Your task to perform on an android device: Go to eBay Image 0: 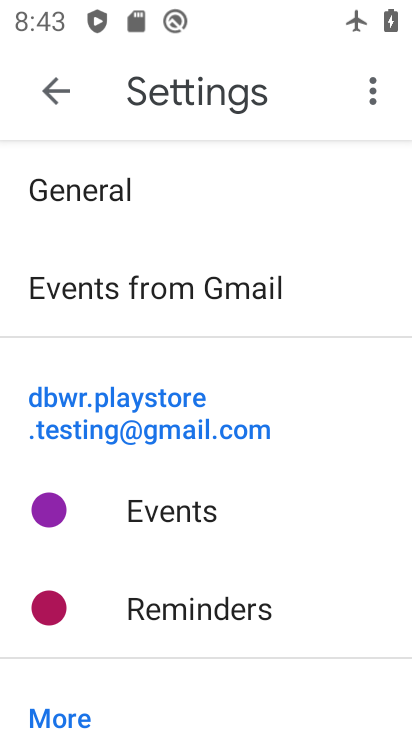
Step 0: press back button
Your task to perform on an android device: Go to eBay Image 1: 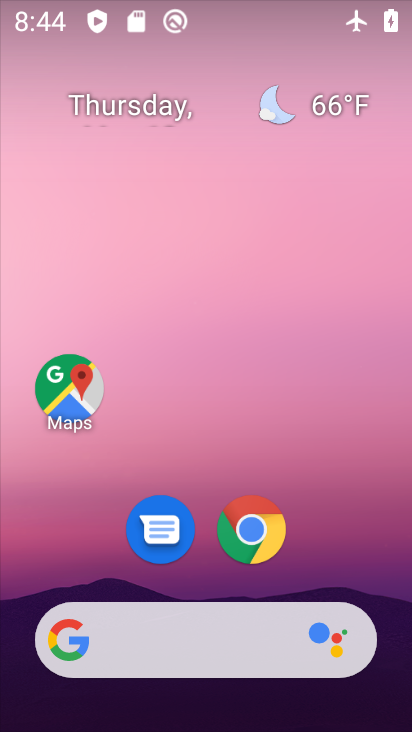
Step 1: drag from (333, 557) to (199, 72)
Your task to perform on an android device: Go to eBay Image 2: 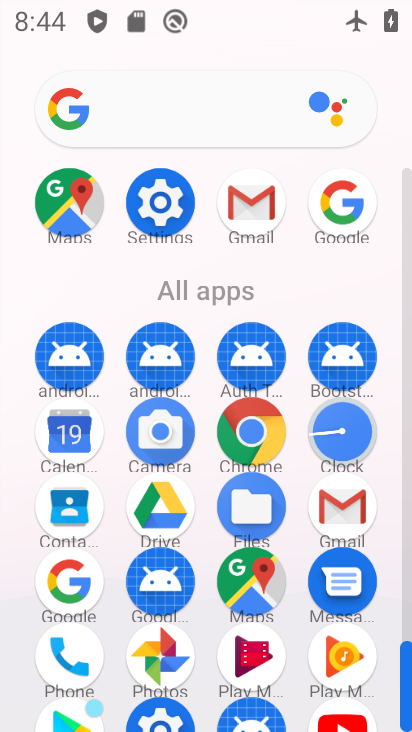
Step 2: click (338, 203)
Your task to perform on an android device: Go to eBay Image 3: 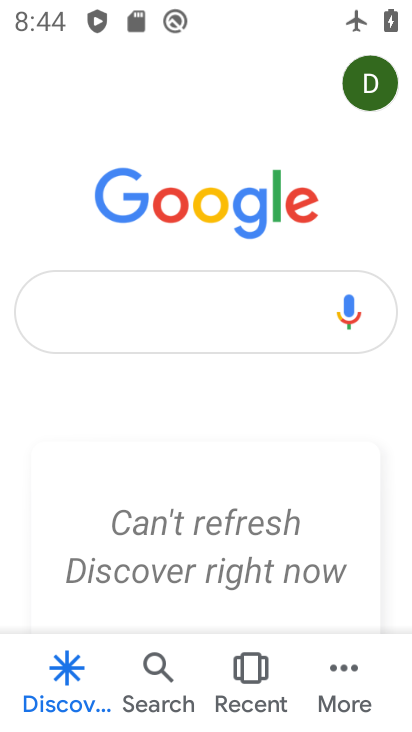
Step 3: press back button
Your task to perform on an android device: Go to eBay Image 4: 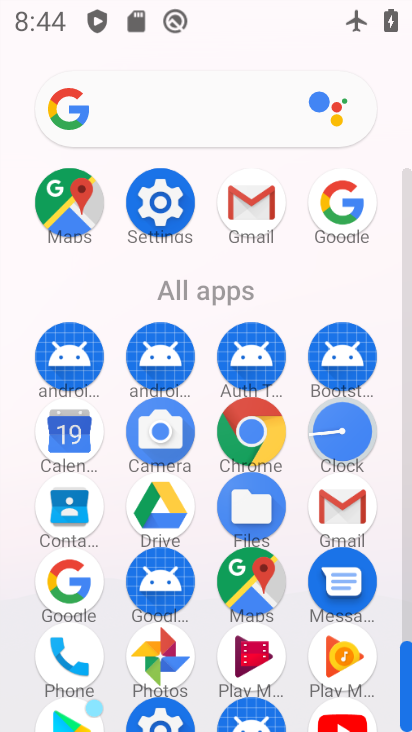
Step 4: click (161, 202)
Your task to perform on an android device: Go to eBay Image 5: 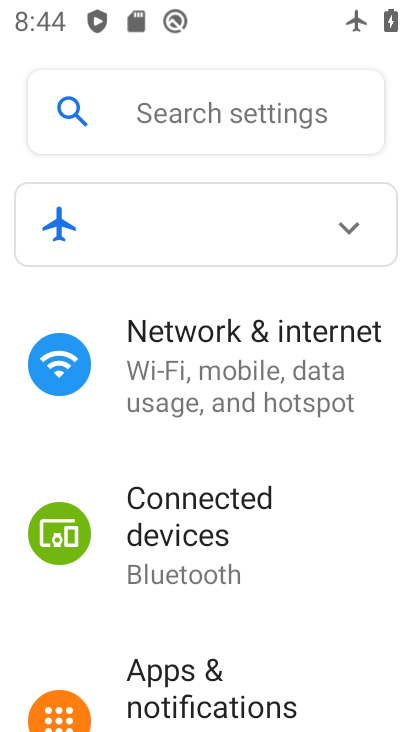
Step 5: click (172, 330)
Your task to perform on an android device: Go to eBay Image 6: 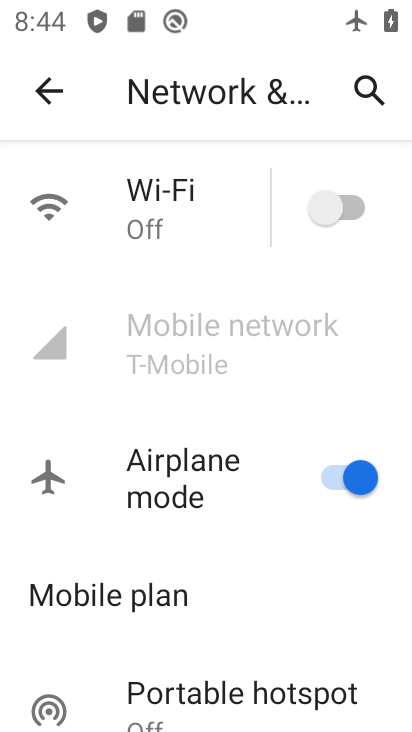
Step 6: click (358, 479)
Your task to perform on an android device: Go to eBay Image 7: 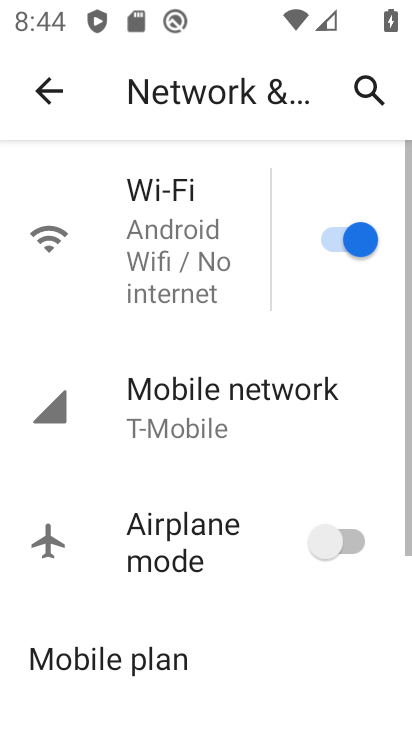
Step 7: press back button
Your task to perform on an android device: Go to eBay Image 8: 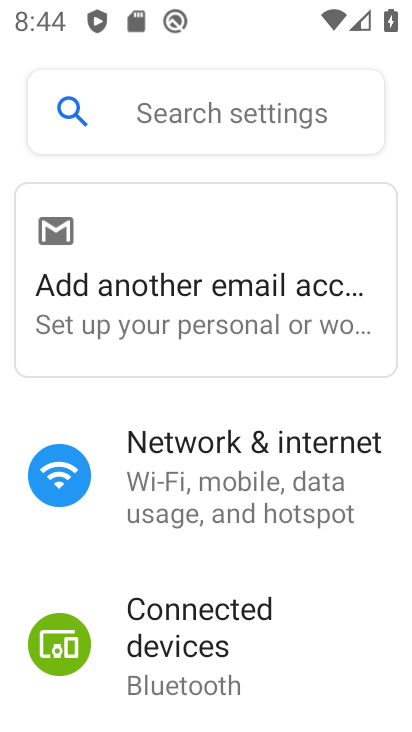
Step 8: press back button
Your task to perform on an android device: Go to eBay Image 9: 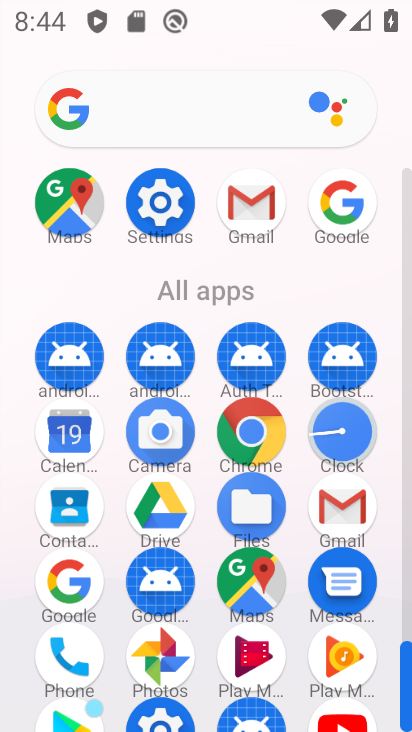
Step 9: click (335, 200)
Your task to perform on an android device: Go to eBay Image 10: 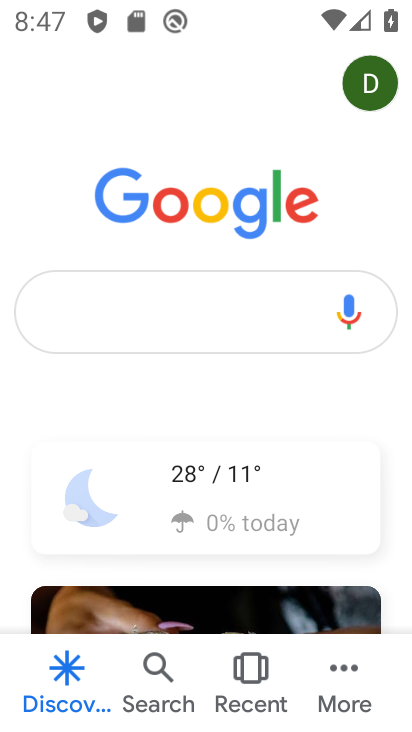
Step 10: click (188, 296)
Your task to perform on an android device: Go to eBay Image 11: 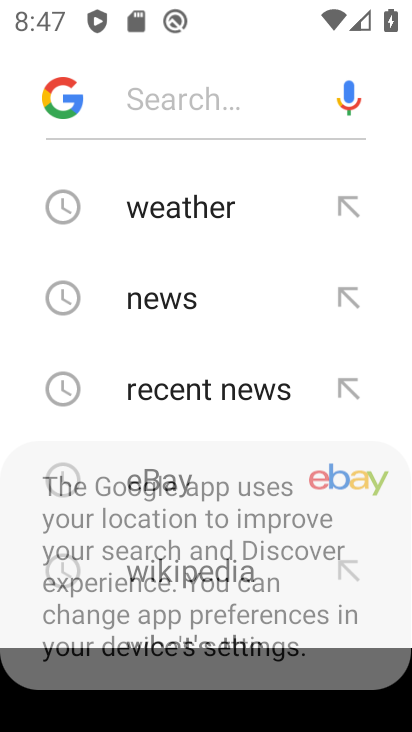
Step 11: click (242, 100)
Your task to perform on an android device: Go to eBay Image 12: 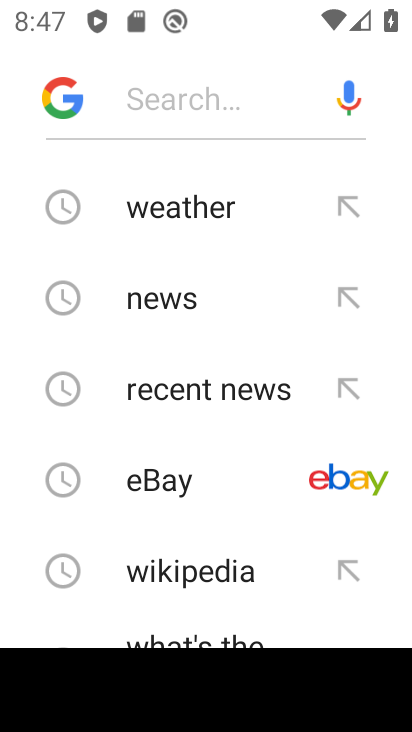
Step 12: type "eBay"
Your task to perform on an android device: Go to eBay Image 13: 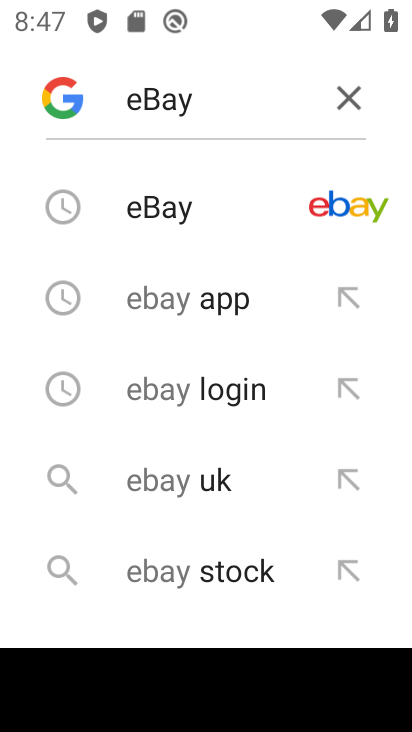
Step 13: click (165, 206)
Your task to perform on an android device: Go to eBay Image 14: 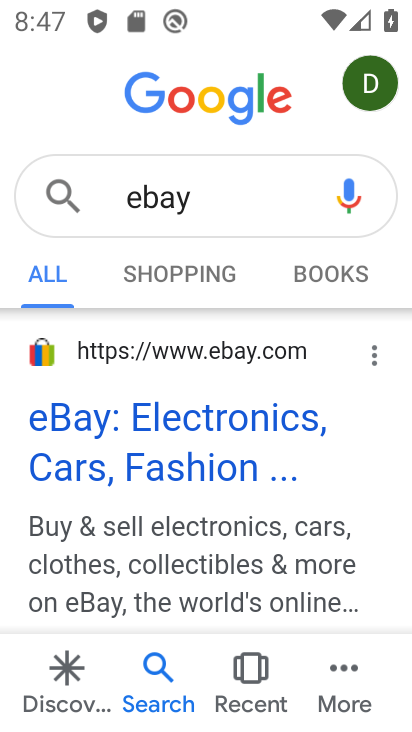
Step 14: click (134, 422)
Your task to perform on an android device: Go to eBay Image 15: 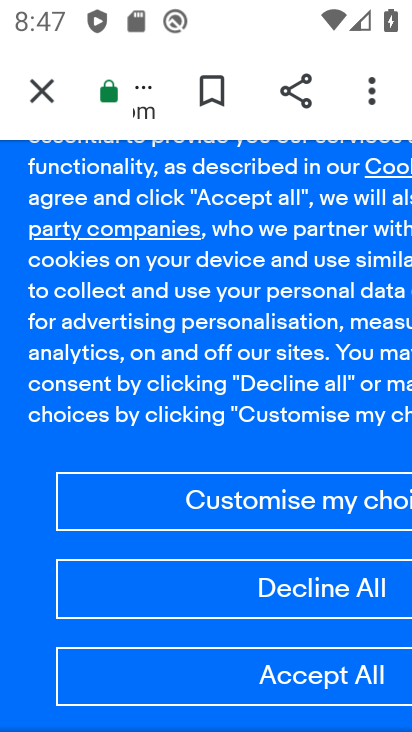
Step 15: task complete